Your task to perform on an android device: allow notifications from all sites in the chrome app Image 0: 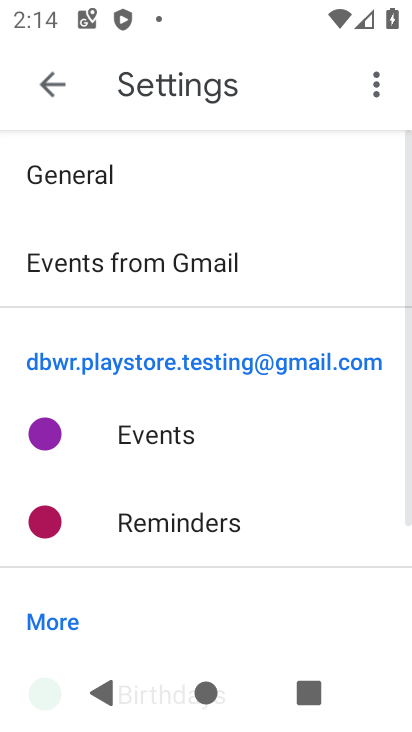
Step 0: press home button
Your task to perform on an android device: allow notifications from all sites in the chrome app Image 1: 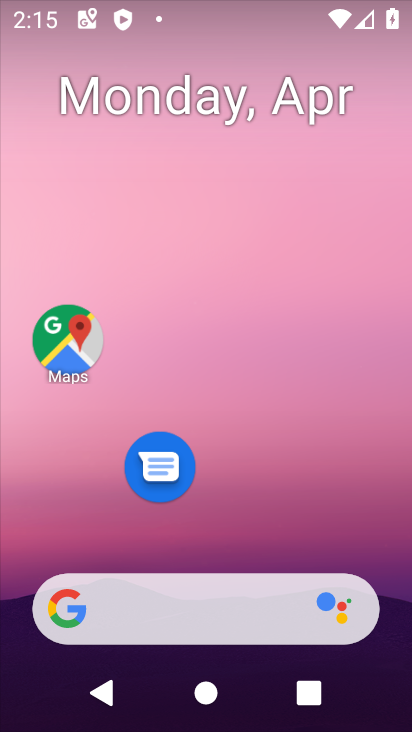
Step 1: drag from (280, 534) to (315, 40)
Your task to perform on an android device: allow notifications from all sites in the chrome app Image 2: 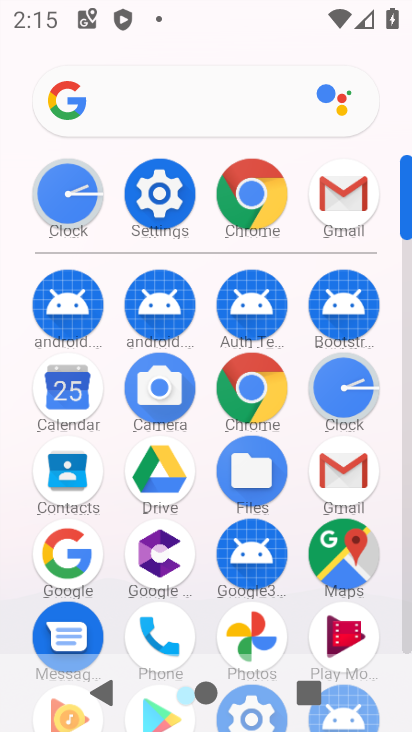
Step 2: click (257, 193)
Your task to perform on an android device: allow notifications from all sites in the chrome app Image 3: 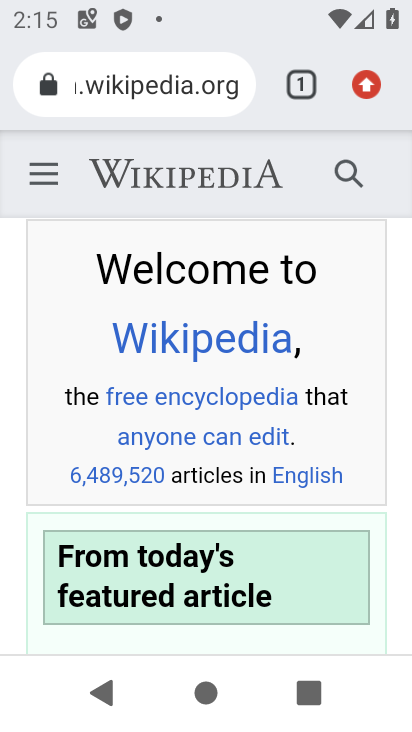
Step 3: click (368, 84)
Your task to perform on an android device: allow notifications from all sites in the chrome app Image 4: 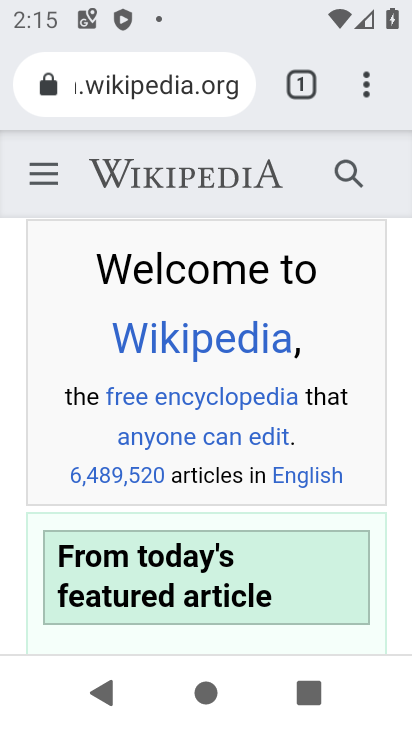
Step 4: click (368, 84)
Your task to perform on an android device: allow notifications from all sites in the chrome app Image 5: 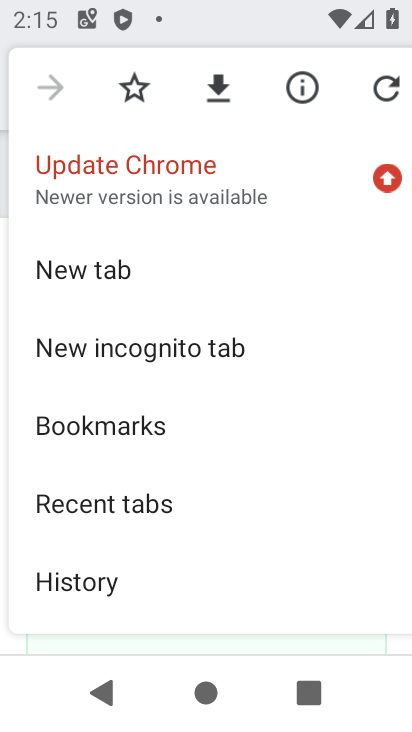
Step 5: drag from (145, 533) to (184, 163)
Your task to perform on an android device: allow notifications from all sites in the chrome app Image 6: 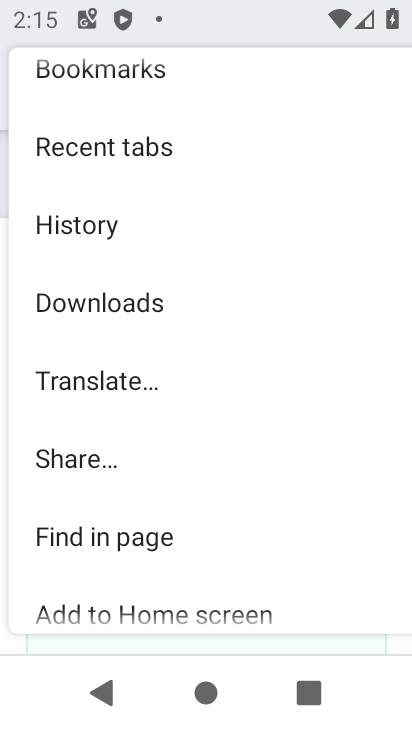
Step 6: drag from (104, 514) to (148, 193)
Your task to perform on an android device: allow notifications from all sites in the chrome app Image 7: 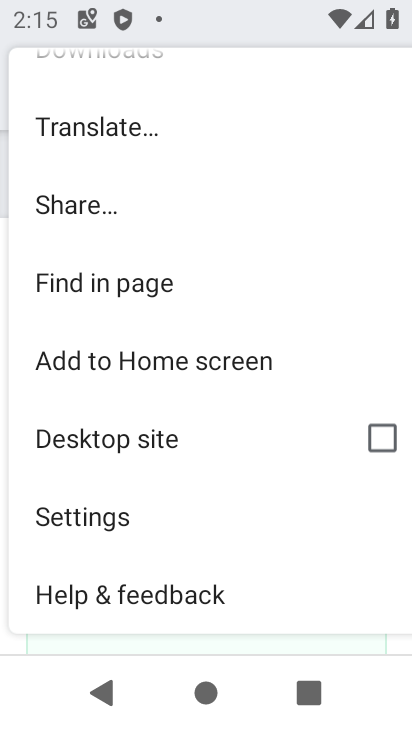
Step 7: click (131, 513)
Your task to perform on an android device: allow notifications from all sites in the chrome app Image 8: 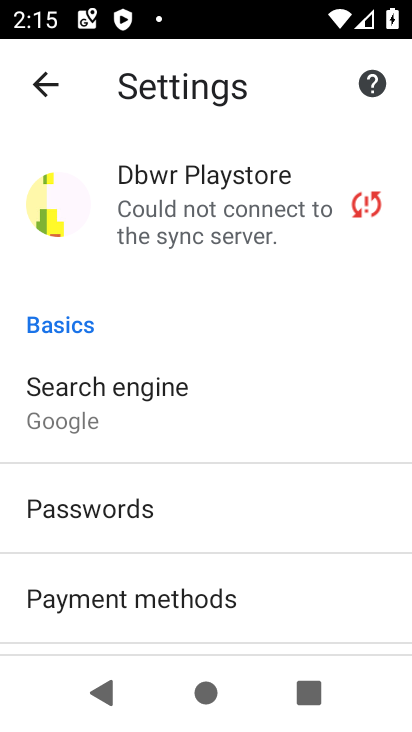
Step 8: drag from (155, 513) to (158, 258)
Your task to perform on an android device: allow notifications from all sites in the chrome app Image 9: 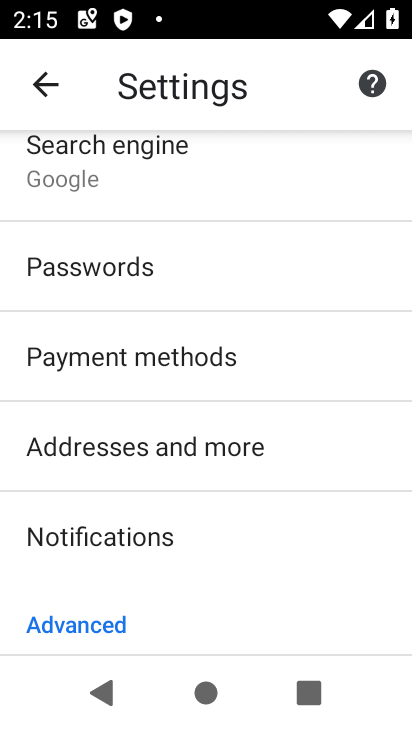
Step 9: drag from (233, 581) to (238, 168)
Your task to perform on an android device: allow notifications from all sites in the chrome app Image 10: 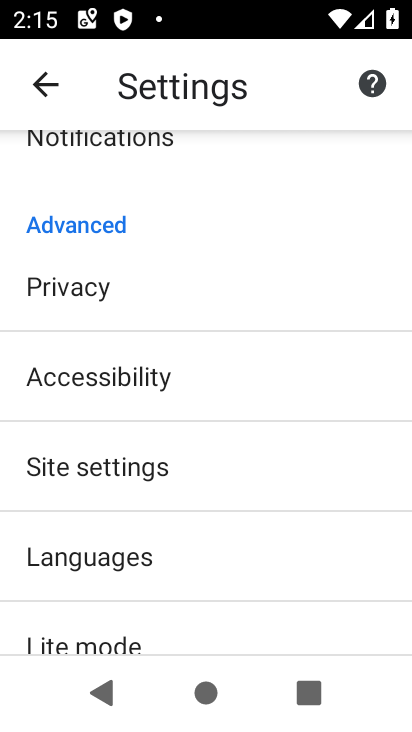
Step 10: click (167, 468)
Your task to perform on an android device: allow notifications from all sites in the chrome app Image 11: 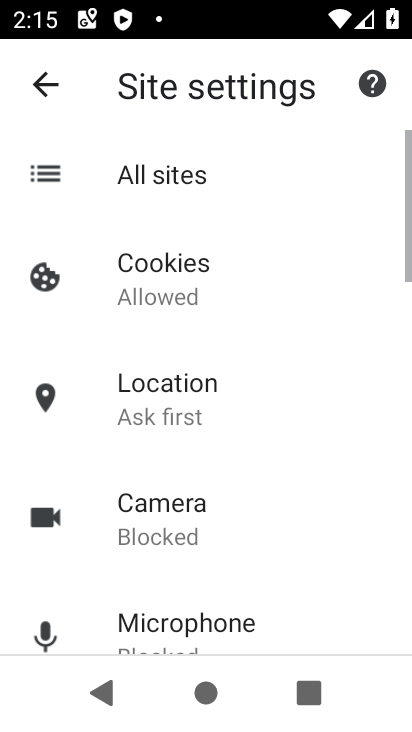
Step 11: drag from (229, 552) to (286, 191)
Your task to perform on an android device: allow notifications from all sites in the chrome app Image 12: 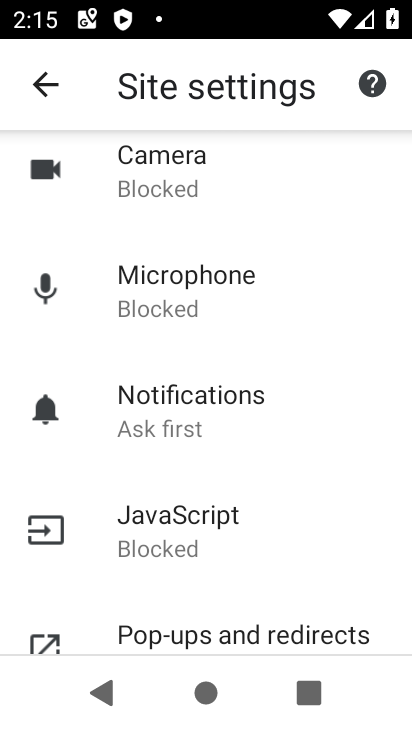
Step 12: click (233, 402)
Your task to perform on an android device: allow notifications from all sites in the chrome app Image 13: 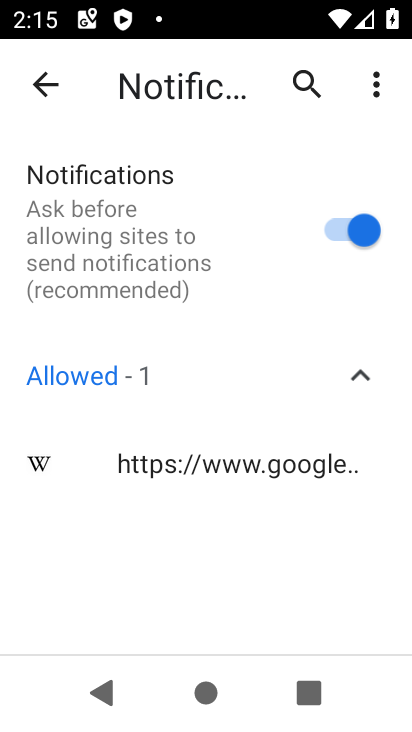
Step 13: task complete